Your task to perform on an android device: Open maps Image 0: 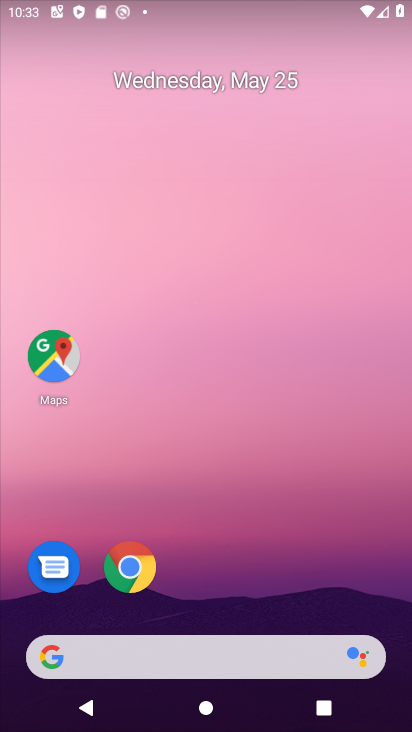
Step 0: drag from (314, 664) to (265, 76)
Your task to perform on an android device: Open maps Image 1: 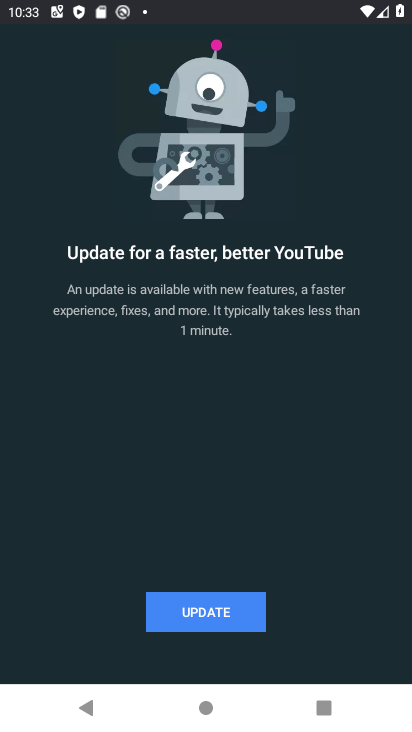
Step 1: press back button
Your task to perform on an android device: Open maps Image 2: 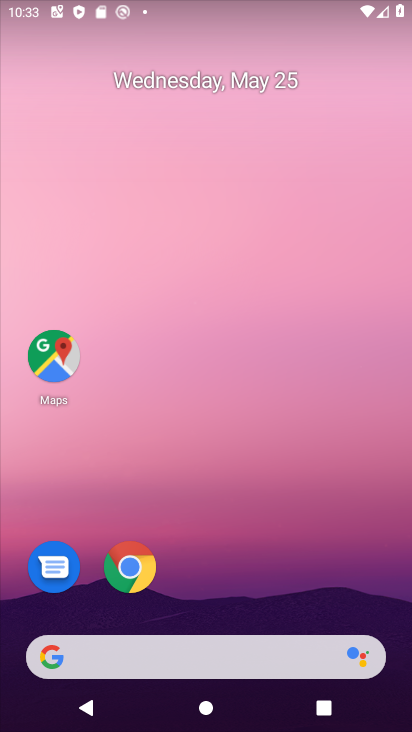
Step 2: drag from (251, 655) to (252, 224)
Your task to perform on an android device: Open maps Image 3: 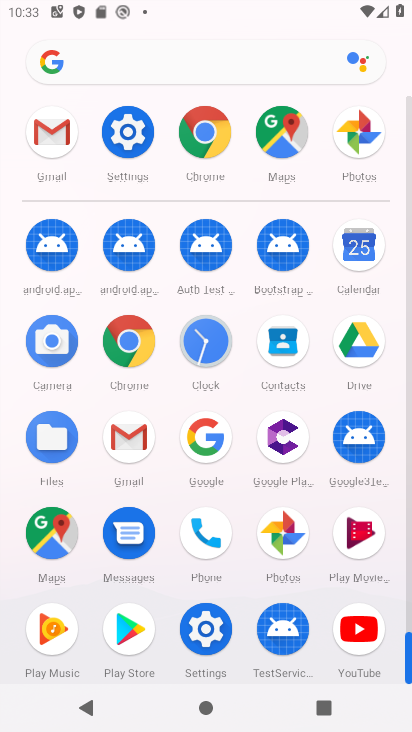
Step 3: drag from (302, 606) to (315, 103)
Your task to perform on an android device: Open maps Image 4: 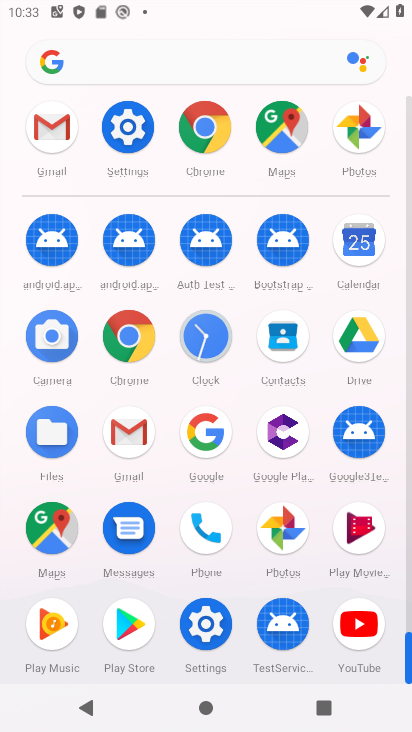
Step 4: click (273, 9)
Your task to perform on an android device: Open maps Image 5: 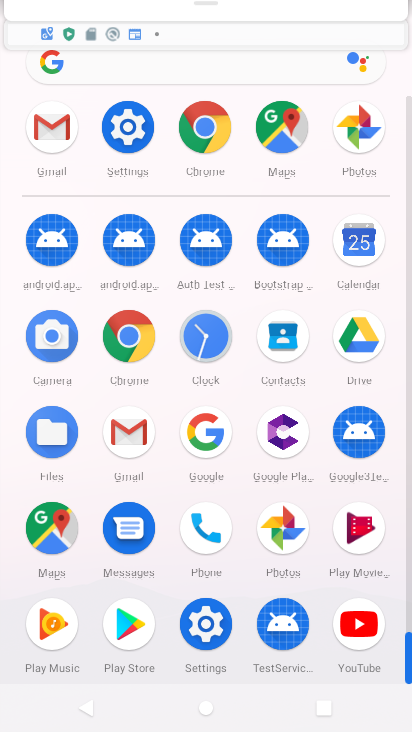
Step 5: click (272, 132)
Your task to perform on an android device: Open maps Image 6: 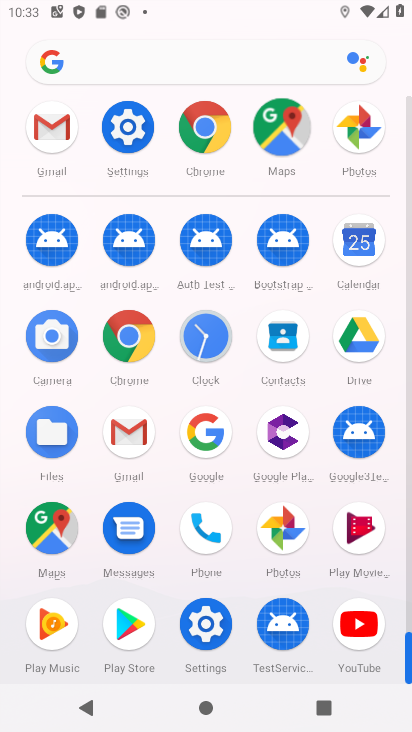
Step 6: click (275, 125)
Your task to perform on an android device: Open maps Image 7: 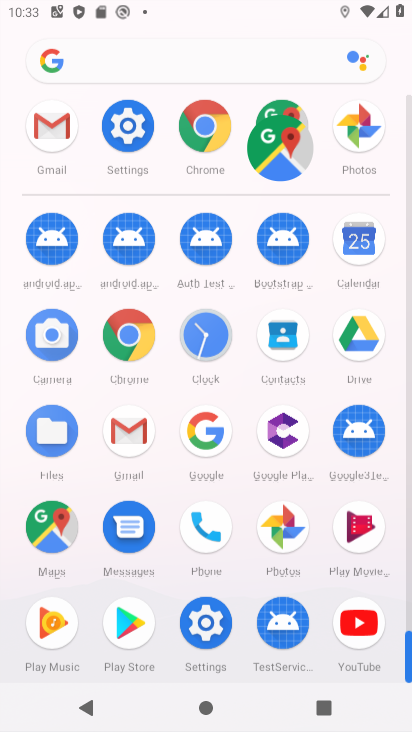
Step 7: click (282, 142)
Your task to perform on an android device: Open maps Image 8: 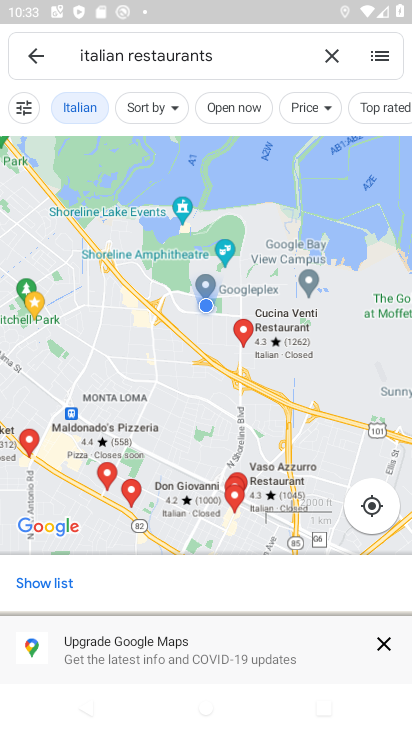
Step 8: task complete